Your task to perform on an android device: Check the news Image 0: 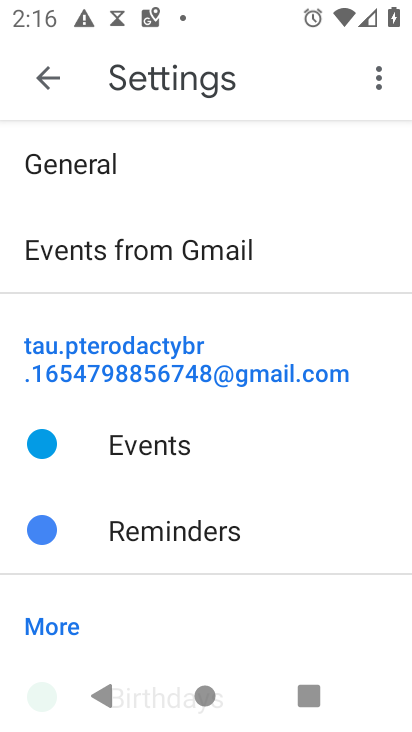
Step 0: press back button
Your task to perform on an android device: Check the news Image 1: 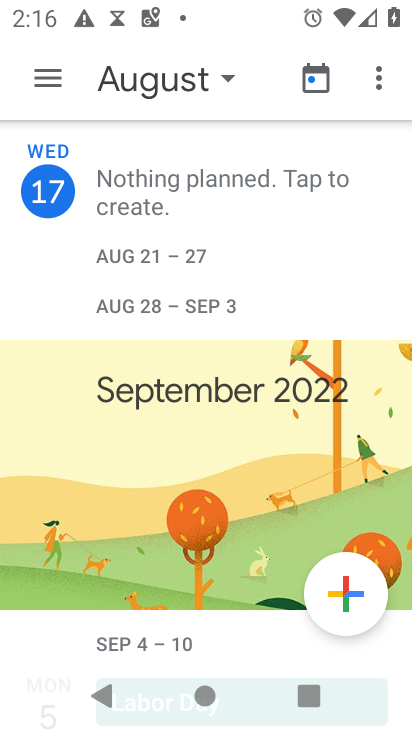
Step 1: press back button
Your task to perform on an android device: Check the news Image 2: 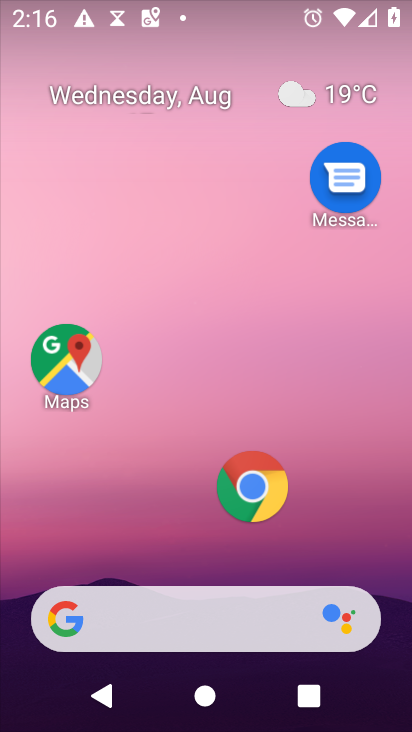
Step 2: click (183, 608)
Your task to perform on an android device: Check the news Image 3: 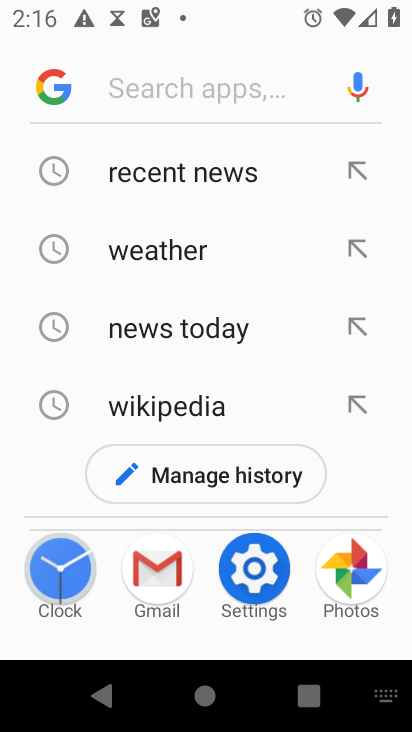
Step 3: click (165, 318)
Your task to perform on an android device: Check the news Image 4: 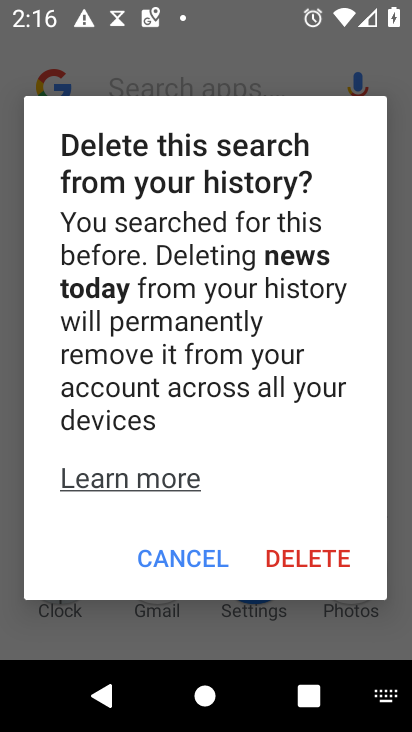
Step 4: click (206, 552)
Your task to perform on an android device: Check the news Image 5: 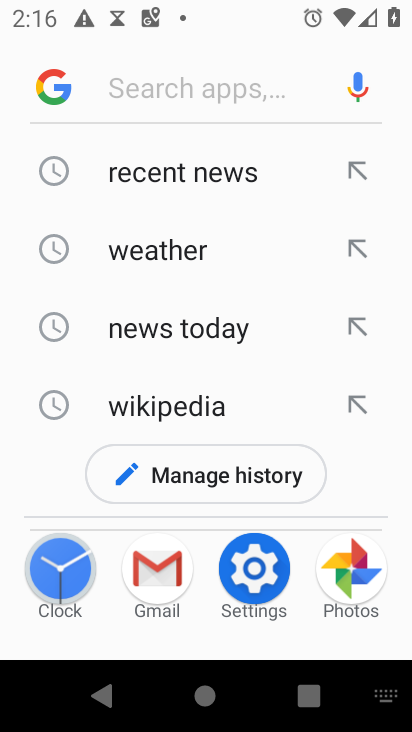
Step 5: click (198, 322)
Your task to perform on an android device: Check the news Image 6: 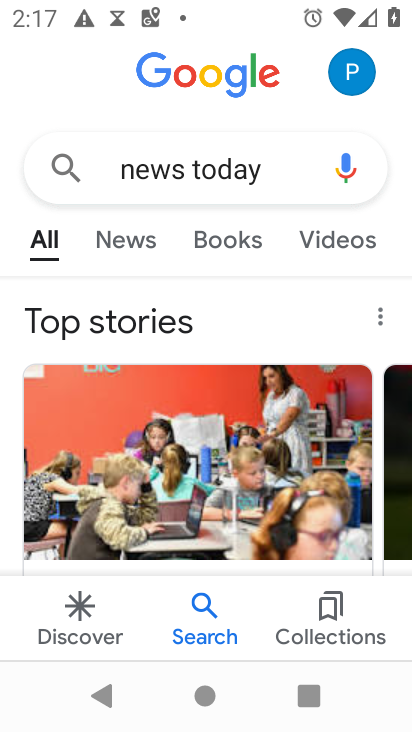
Step 6: task complete